Your task to perform on an android device: Open Youtube and go to "Your channel" Image 0: 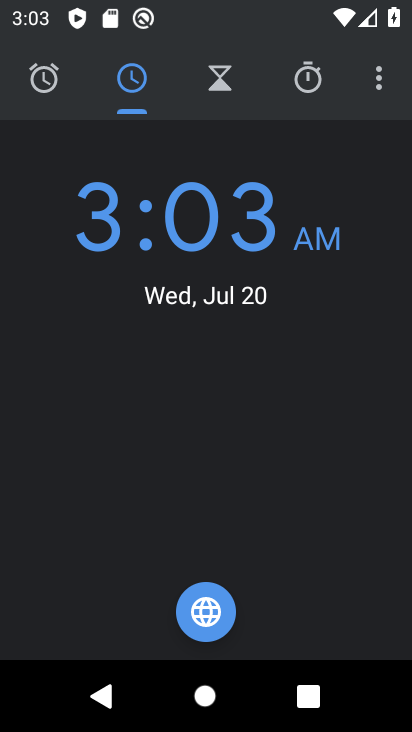
Step 0: press back button
Your task to perform on an android device: Open Youtube and go to "Your channel" Image 1: 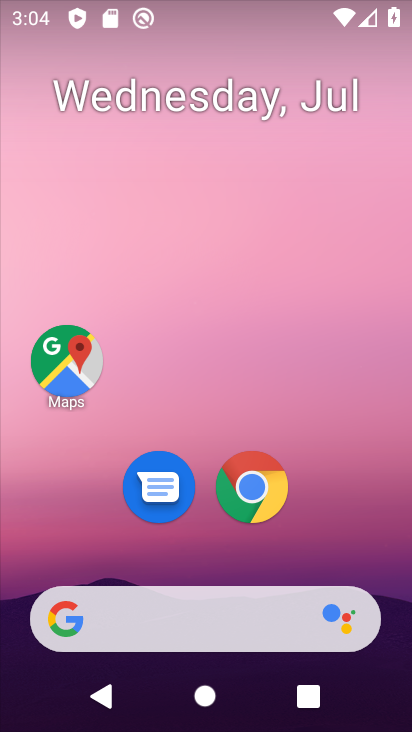
Step 1: drag from (97, 544) to (206, 0)
Your task to perform on an android device: Open Youtube and go to "Your channel" Image 2: 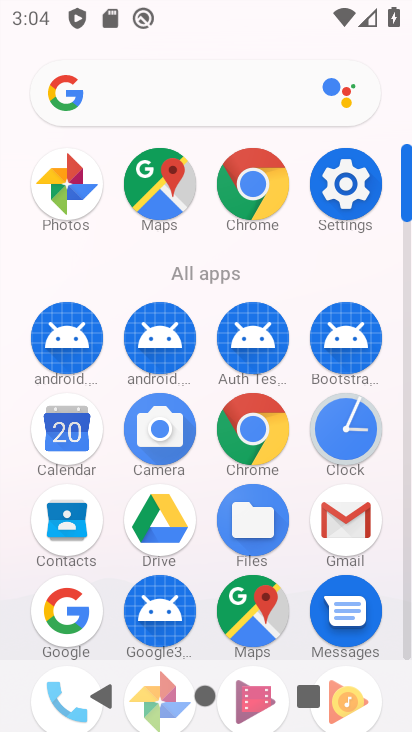
Step 2: drag from (187, 623) to (297, 22)
Your task to perform on an android device: Open Youtube and go to "Your channel" Image 3: 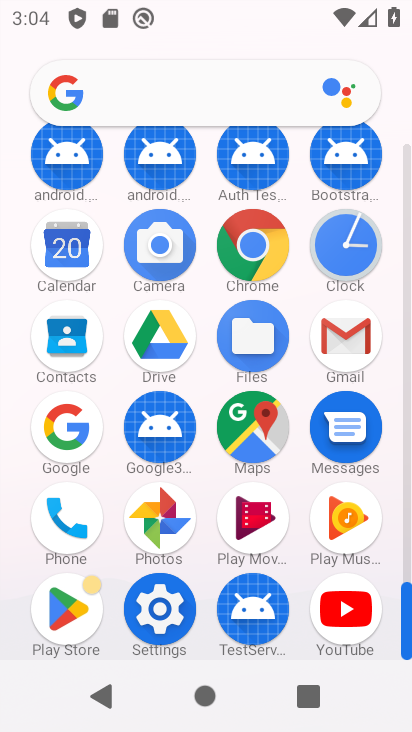
Step 3: click (333, 614)
Your task to perform on an android device: Open Youtube and go to "Your channel" Image 4: 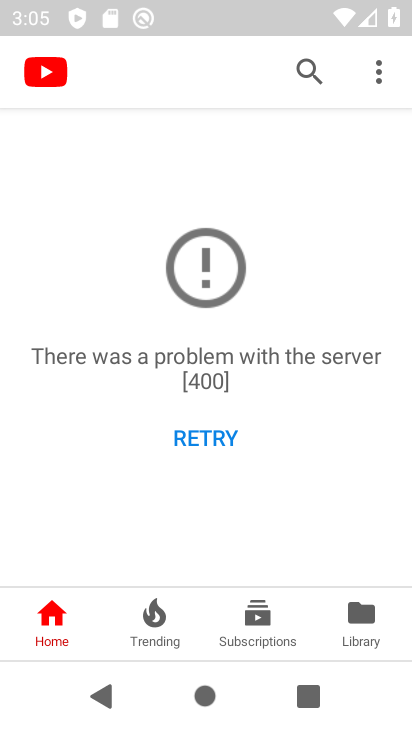
Step 4: click (361, 625)
Your task to perform on an android device: Open Youtube and go to "Your channel" Image 5: 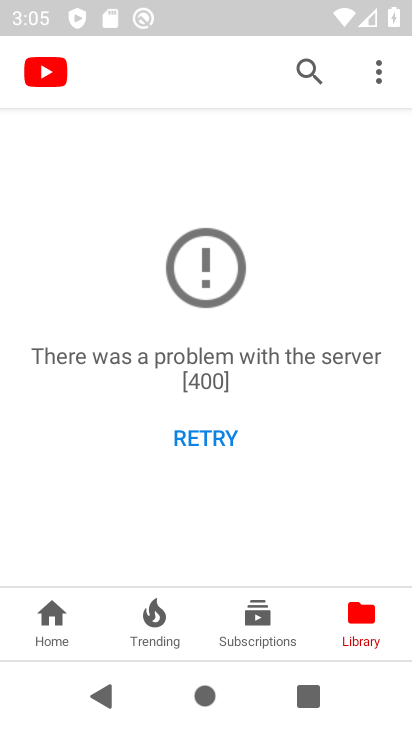
Step 5: task complete